Your task to perform on an android device: Do I have any events today? Image 0: 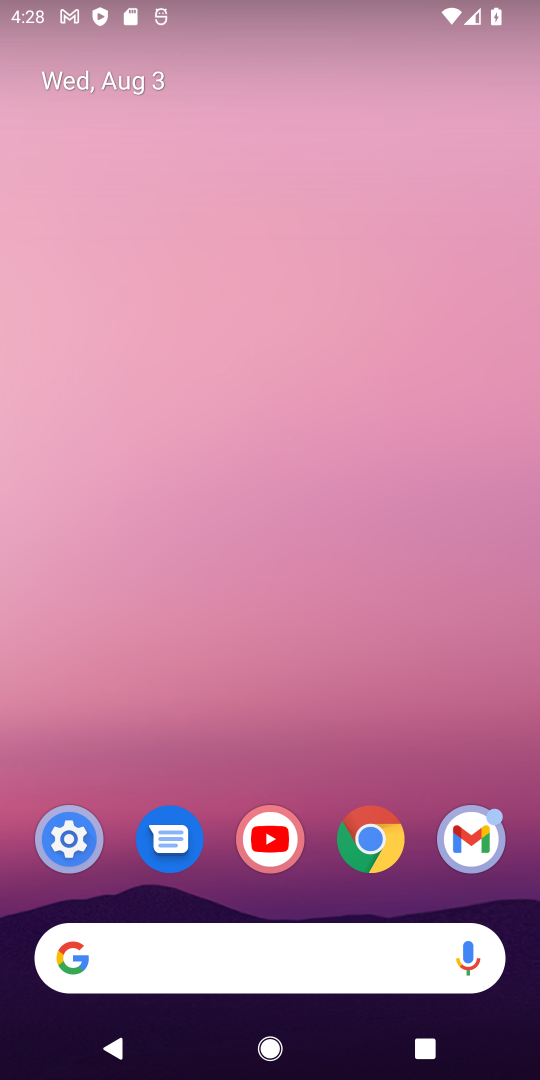
Step 0: drag from (200, 654) to (337, 43)
Your task to perform on an android device: Do I have any events today? Image 1: 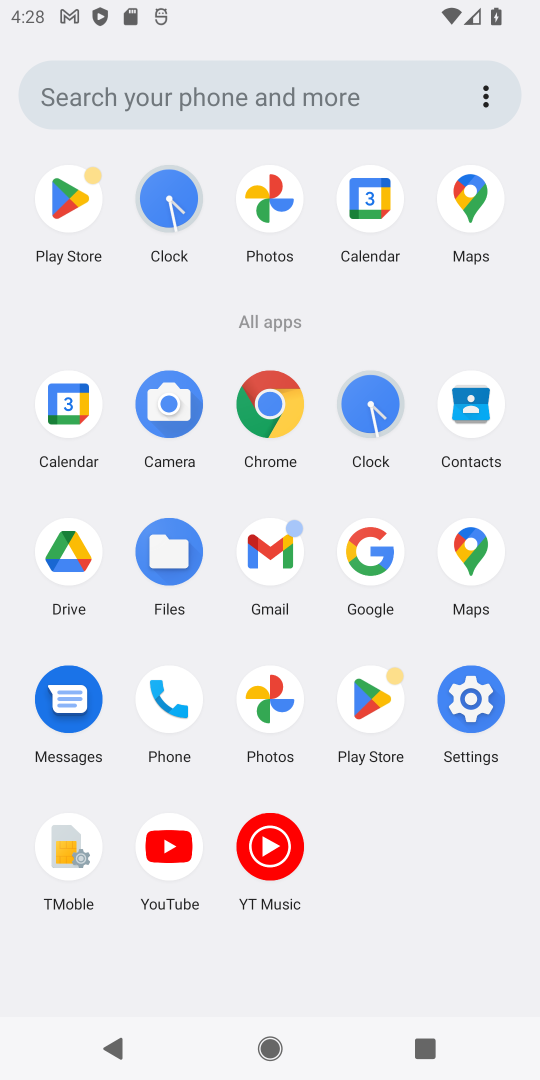
Step 1: click (68, 417)
Your task to perform on an android device: Do I have any events today? Image 2: 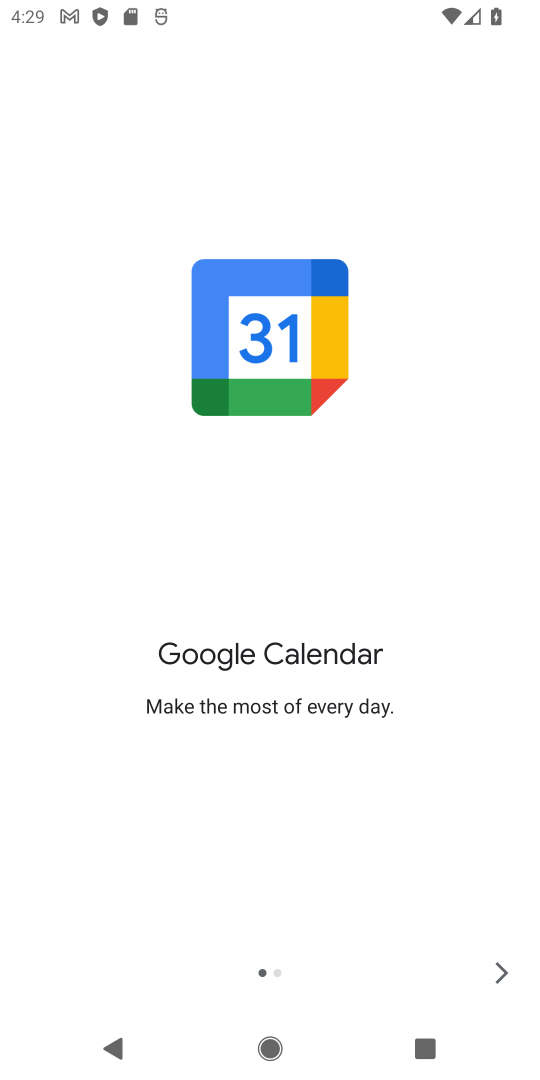
Step 2: click (501, 980)
Your task to perform on an android device: Do I have any events today? Image 3: 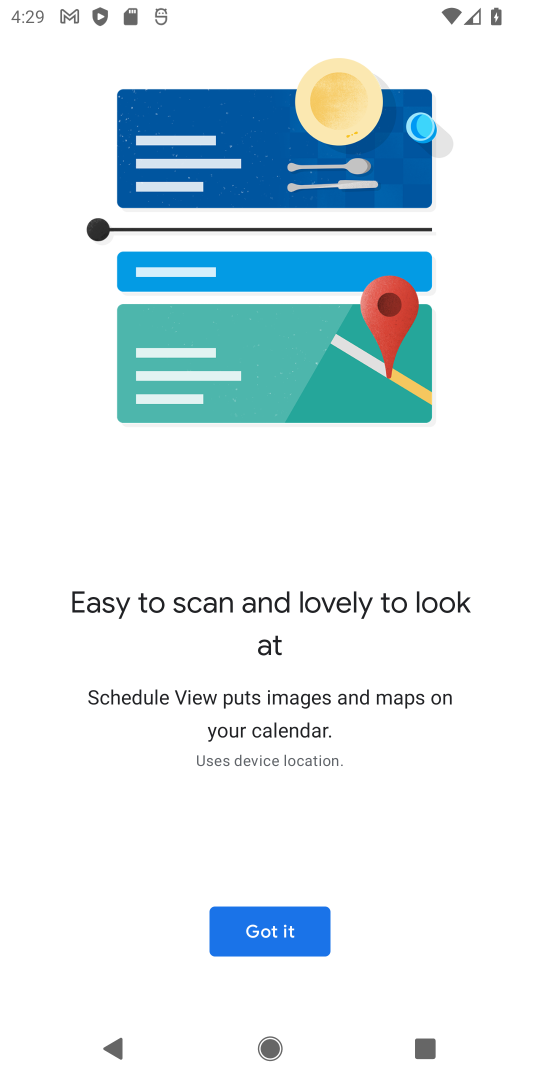
Step 3: click (248, 928)
Your task to perform on an android device: Do I have any events today? Image 4: 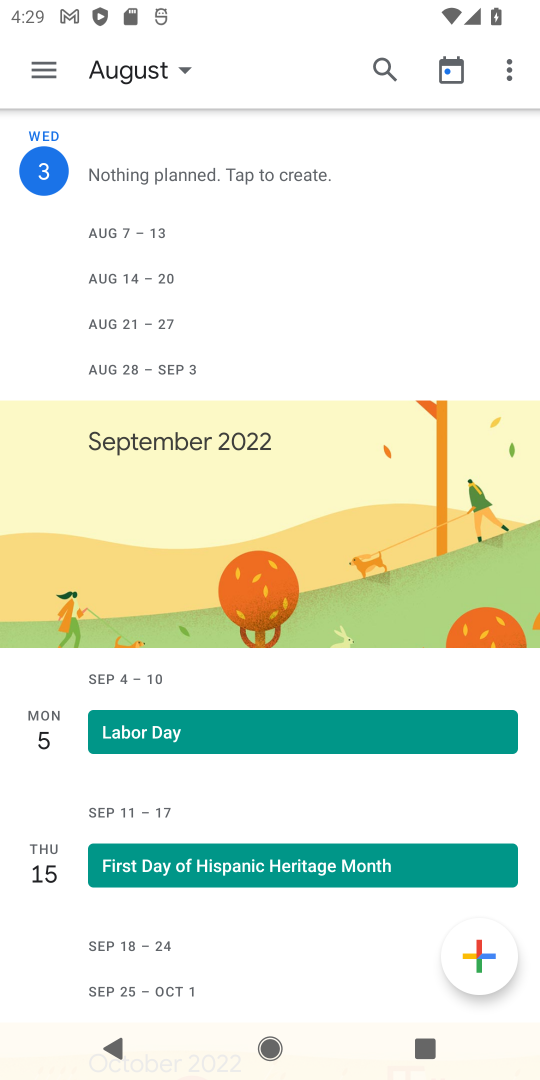
Step 4: task complete